Your task to perform on an android device: Do I have any events today? Image 0: 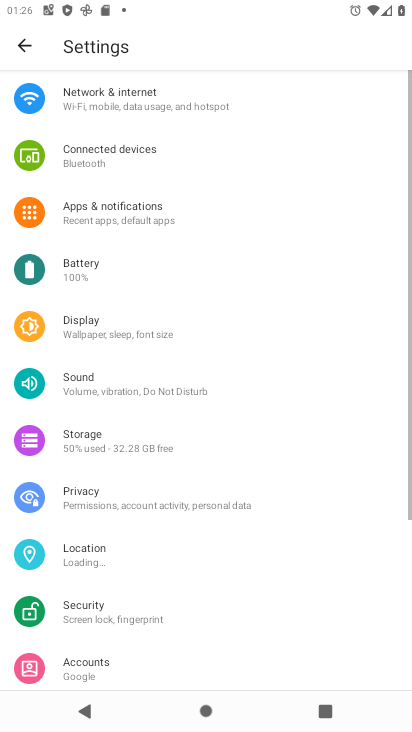
Step 0: press home button
Your task to perform on an android device: Do I have any events today? Image 1: 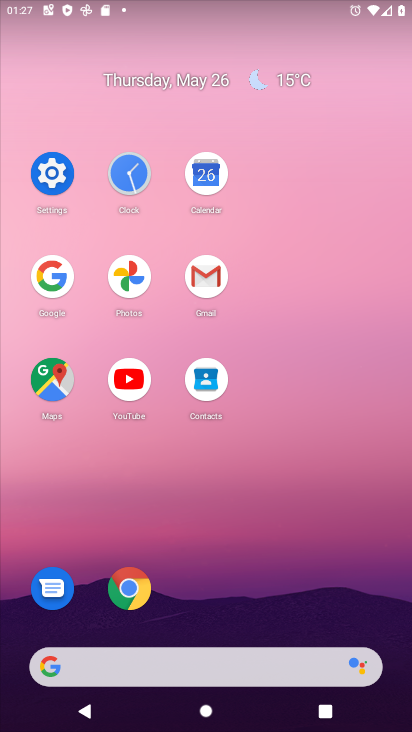
Step 1: click (208, 162)
Your task to perform on an android device: Do I have any events today? Image 2: 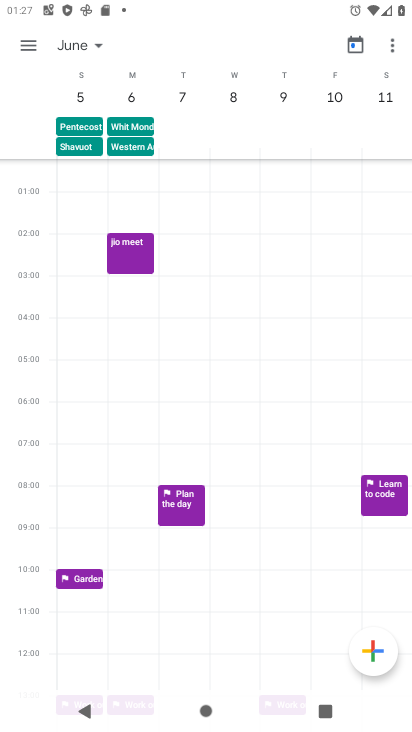
Step 2: click (97, 42)
Your task to perform on an android device: Do I have any events today? Image 3: 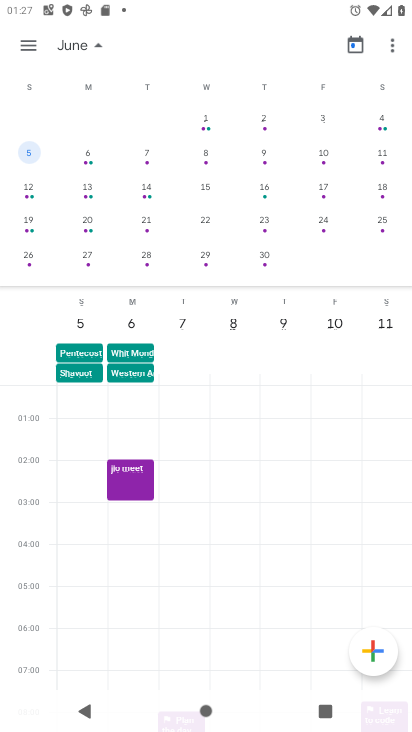
Step 3: drag from (53, 188) to (363, 101)
Your task to perform on an android device: Do I have any events today? Image 4: 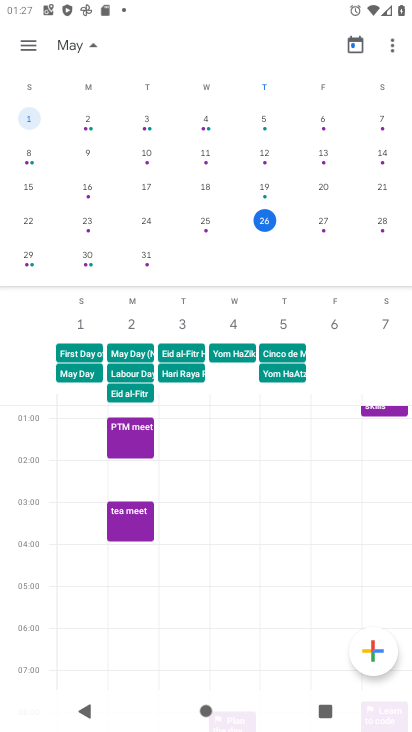
Step 4: click (26, 47)
Your task to perform on an android device: Do I have any events today? Image 5: 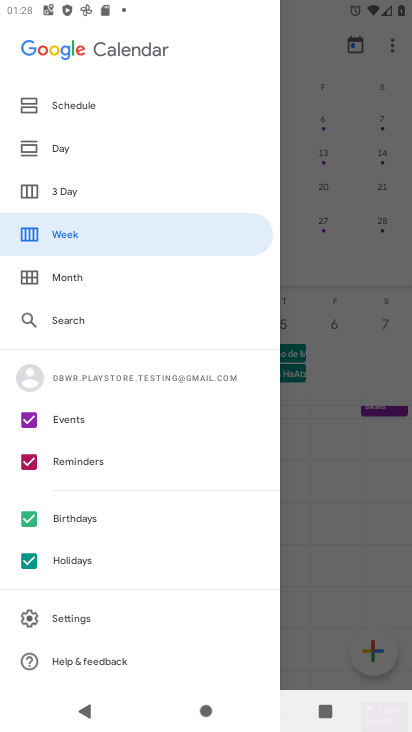
Step 5: click (70, 154)
Your task to perform on an android device: Do I have any events today? Image 6: 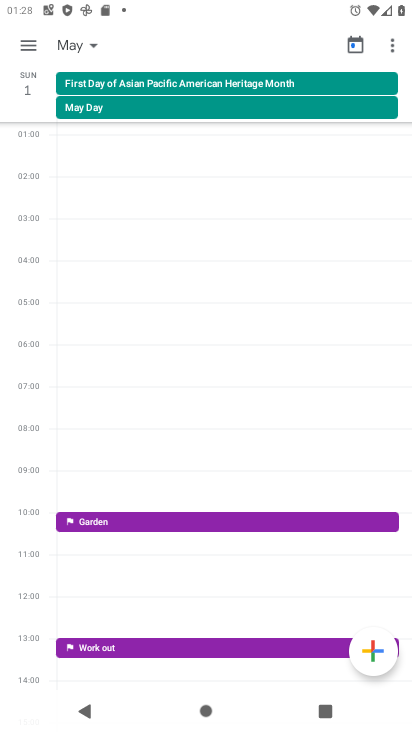
Step 6: click (80, 50)
Your task to perform on an android device: Do I have any events today? Image 7: 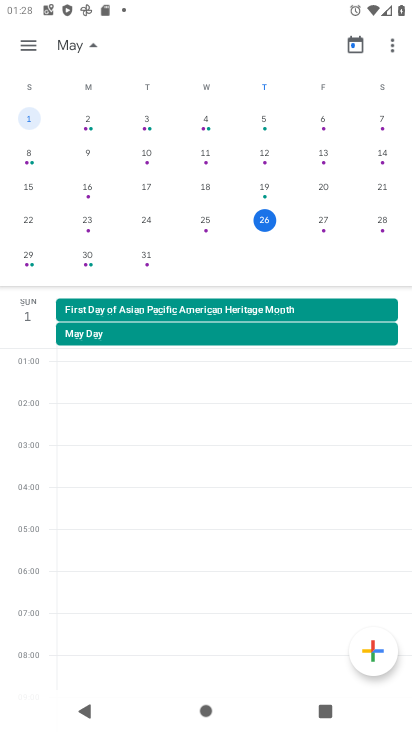
Step 7: click (261, 219)
Your task to perform on an android device: Do I have any events today? Image 8: 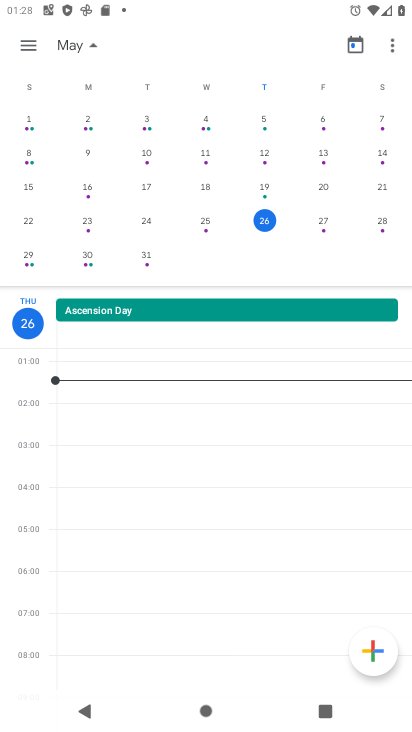
Step 8: click (16, 324)
Your task to perform on an android device: Do I have any events today? Image 9: 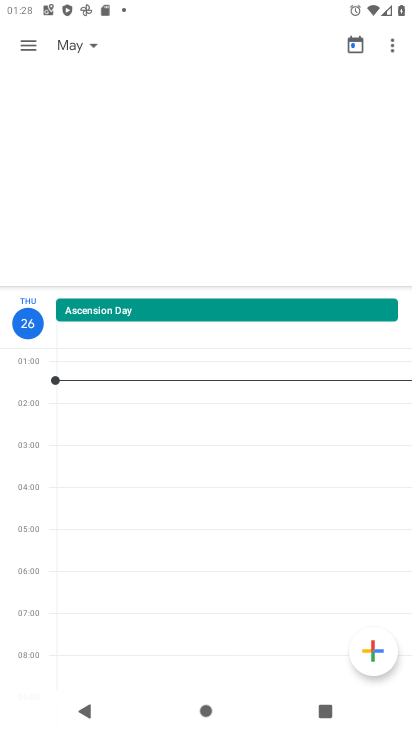
Step 9: task complete